Your task to perform on an android device: turn notification dots off Image 0: 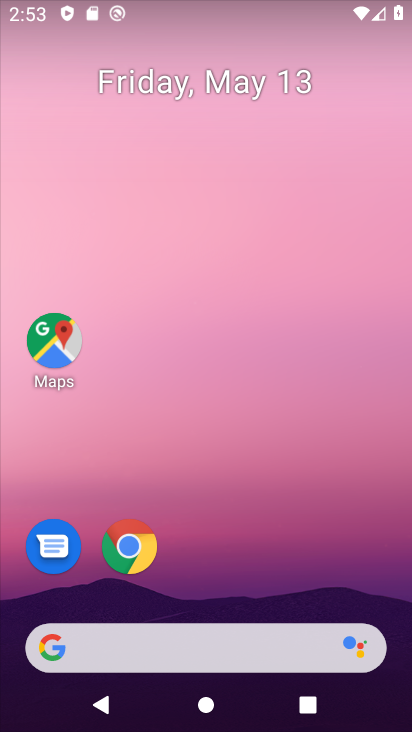
Step 0: drag from (192, 604) to (409, 116)
Your task to perform on an android device: turn notification dots off Image 1: 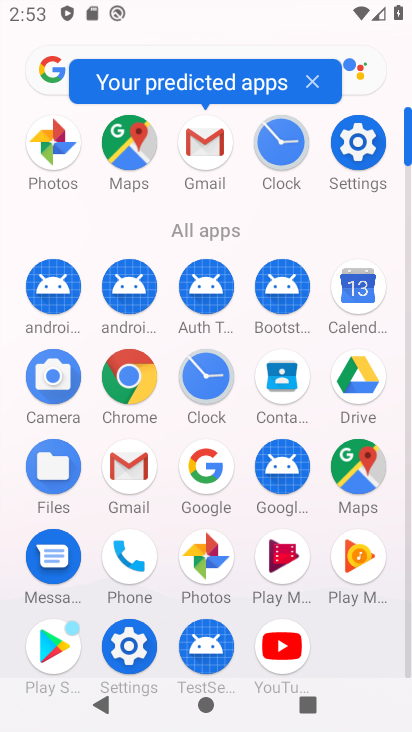
Step 1: click (341, 150)
Your task to perform on an android device: turn notification dots off Image 2: 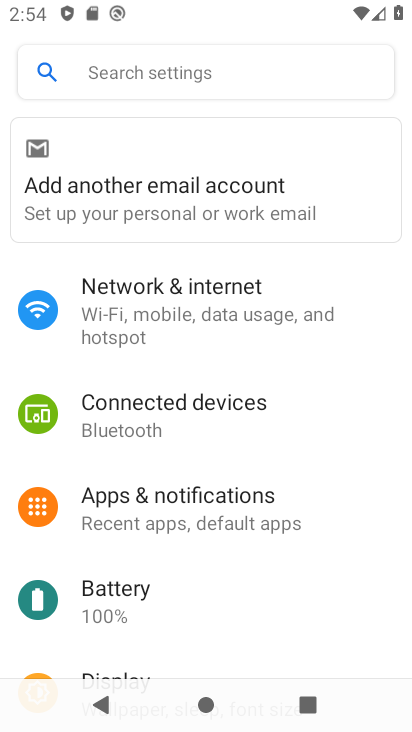
Step 2: click (140, 515)
Your task to perform on an android device: turn notification dots off Image 3: 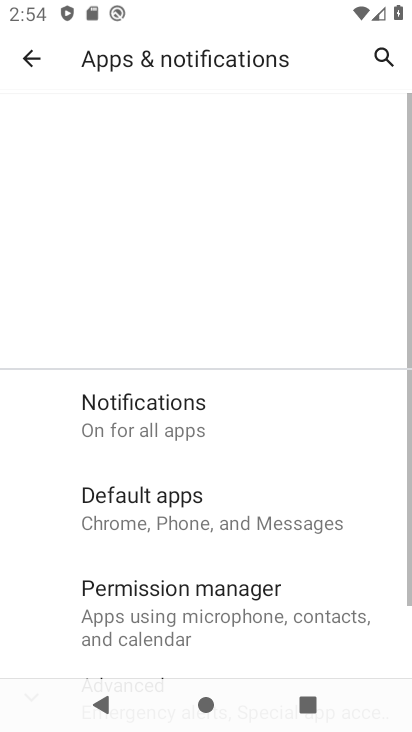
Step 3: drag from (158, 582) to (142, 149)
Your task to perform on an android device: turn notification dots off Image 4: 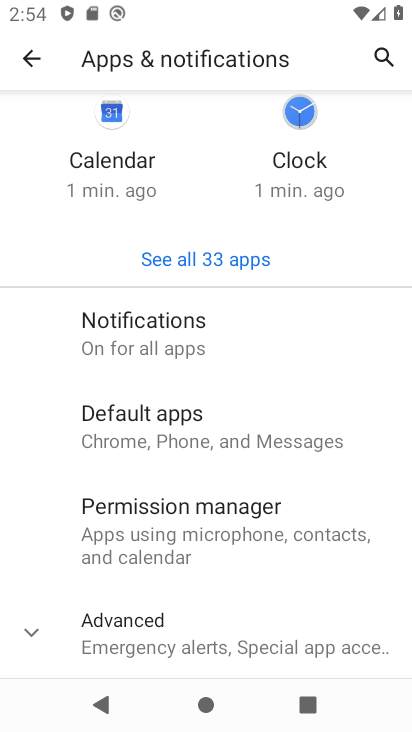
Step 4: drag from (164, 573) to (222, 240)
Your task to perform on an android device: turn notification dots off Image 5: 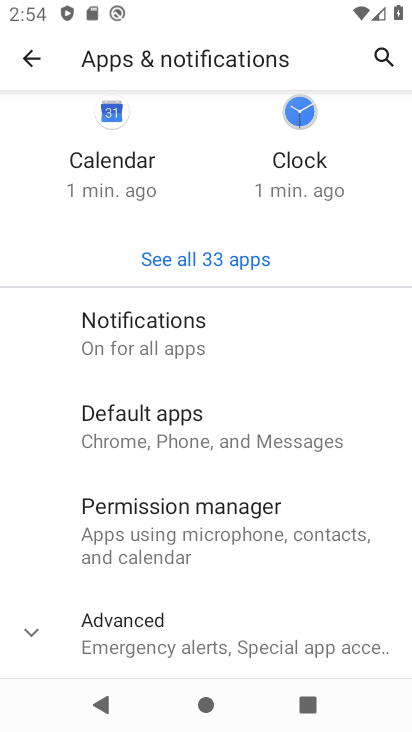
Step 5: click (140, 321)
Your task to perform on an android device: turn notification dots off Image 6: 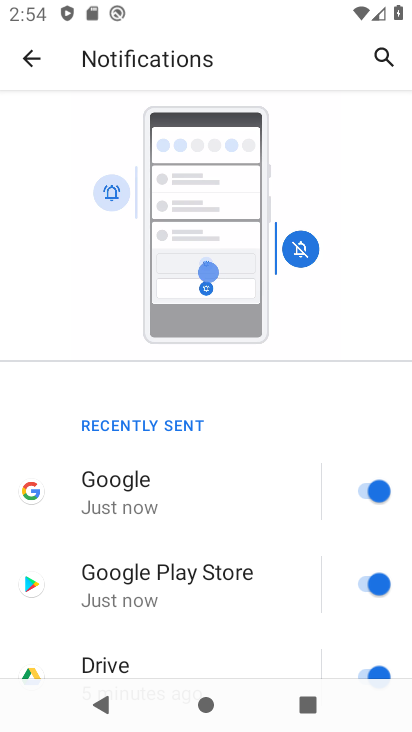
Step 6: drag from (207, 566) to (264, 138)
Your task to perform on an android device: turn notification dots off Image 7: 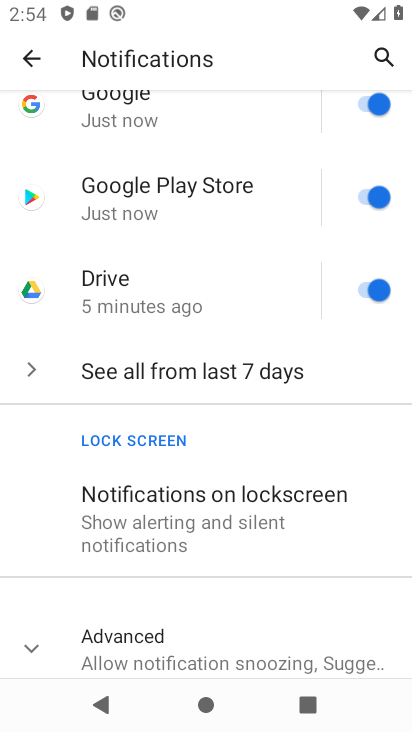
Step 7: click (143, 644)
Your task to perform on an android device: turn notification dots off Image 8: 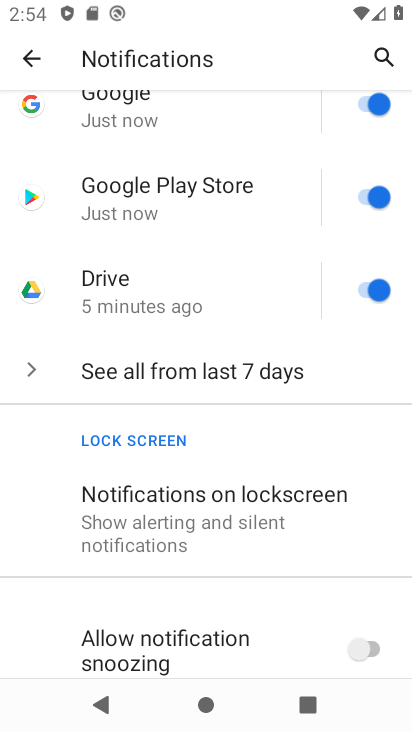
Step 8: drag from (143, 644) to (179, 320)
Your task to perform on an android device: turn notification dots off Image 9: 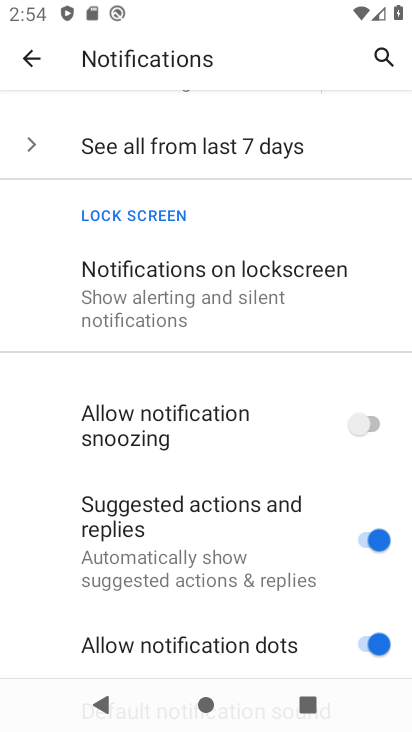
Step 9: click (385, 641)
Your task to perform on an android device: turn notification dots off Image 10: 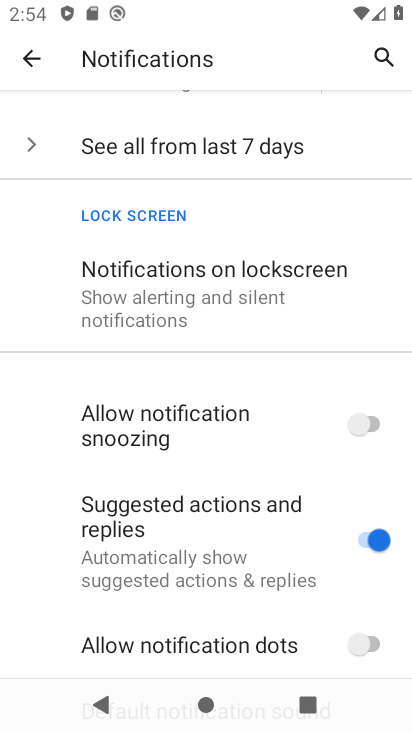
Step 10: task complete